Your task to perform on an android device: Go to Yahoo.com Image 0: 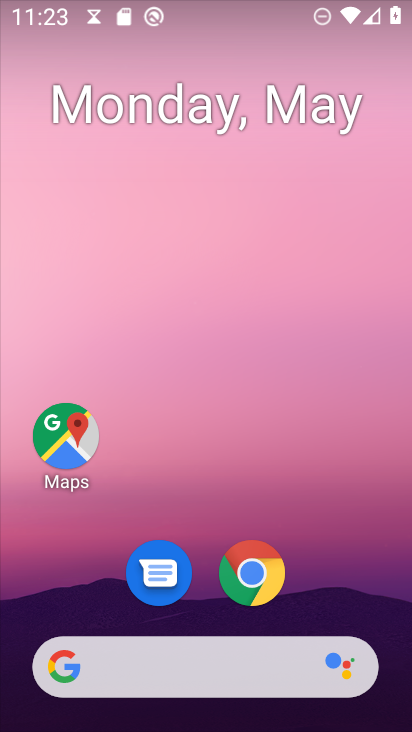
Step 0: click (263, 575)
Your task to perform on an android device: Go to Yahoo.com Image 1: 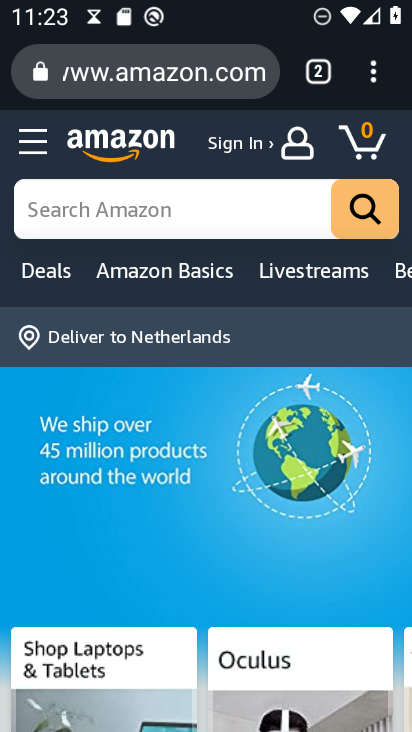
Step 1: click (312, 78)
Your task to perform on an android device: Go to Yahoo.com Image 2: 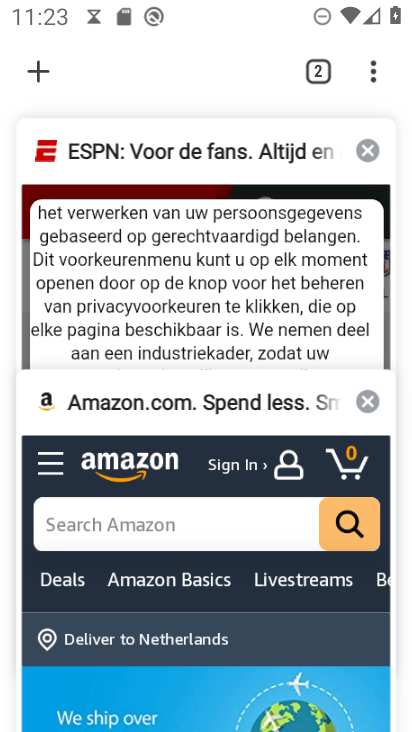
Step 2: click (27, 70)
Your task to perform on an android device: Go to Yahoo.com Image 3: 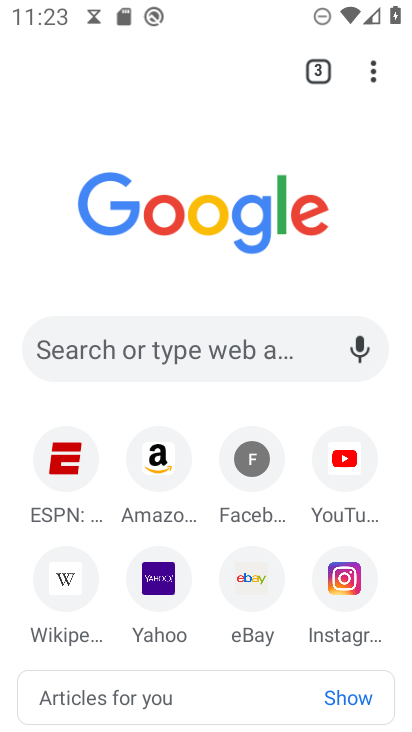
Step 3: click (163, 592)
Your task to perform on an android device: Go to Yahoo.com Image 4: 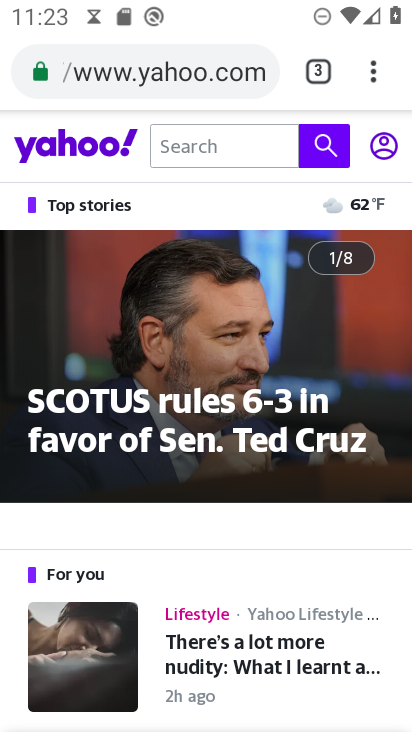
Step 4: task complete